Your task to perform on an android device: Open internet settings Image 0: 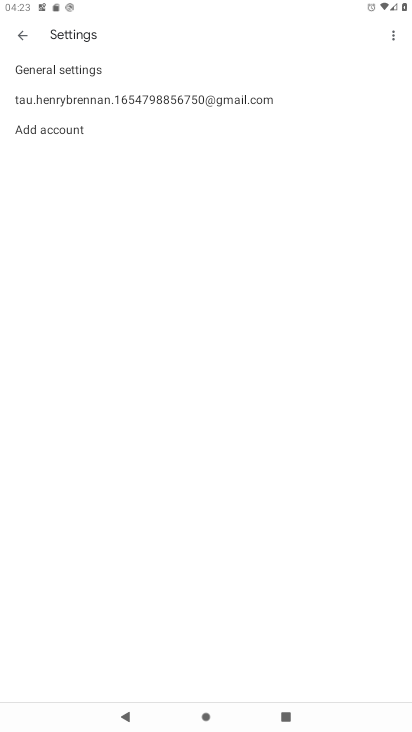
Step 0: press home button
Your task to perform on an android device: Open internet settings Image 1: 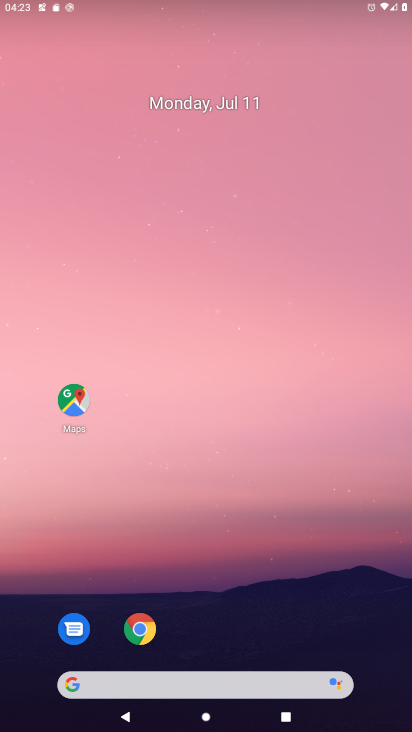
Step 1: drag from (202, 618) to (276, 39)
Your task to perform on an android device: Open internet settings Image 2: 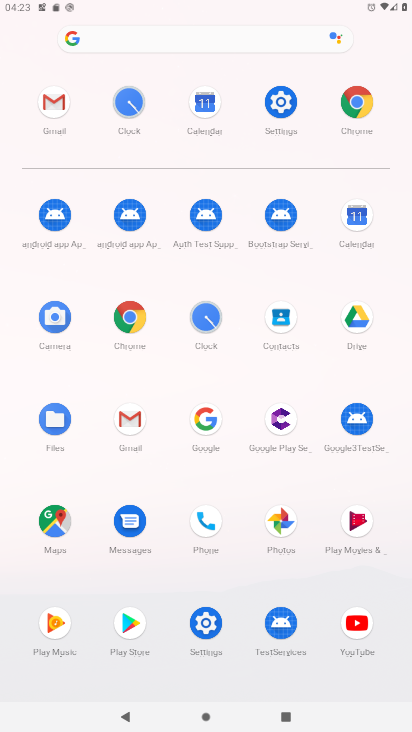
Step 2: click (273, 87)
Your task to perform on an android device: Open internet settings Image 3: 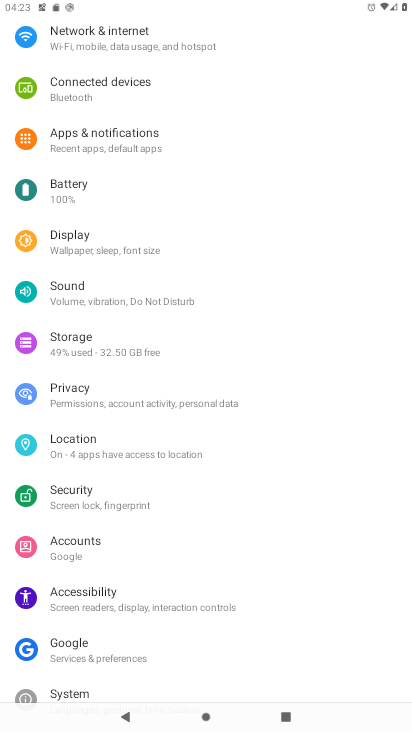
Step 3: click (97, 37)
Your task to perform on an android device: Open internet settings Image 4: 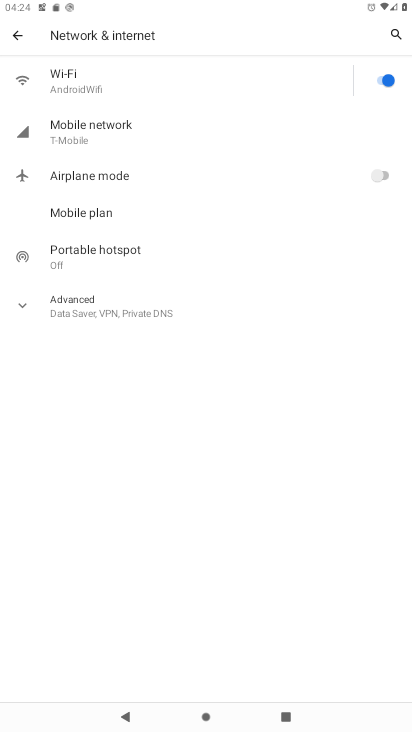
Step 4: task complete